Your task to perform on an android device: Open Google Image 0: 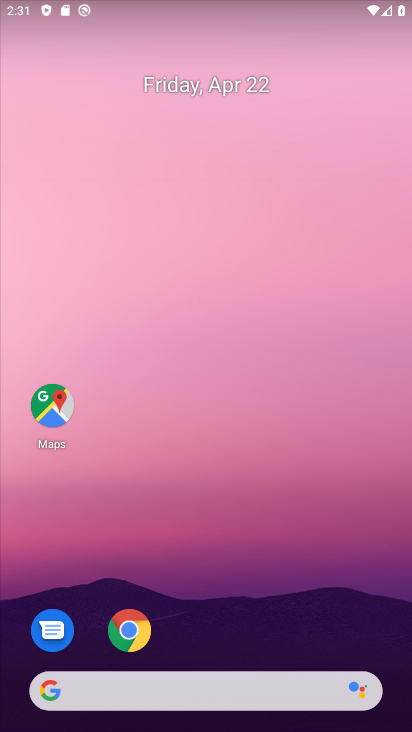
Step 0: drag from (331, 574) to (321, 180)
Your task to perform on an android device: Open Google Image 1: 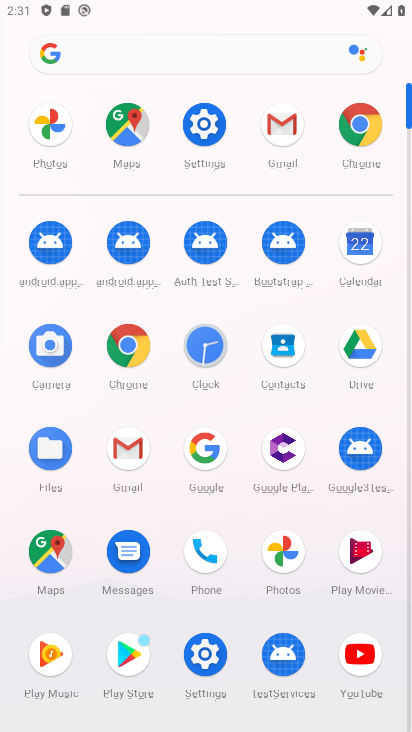
Step 1: click (202, 465)
Your task to perform on an android device: Open Google Image 2: 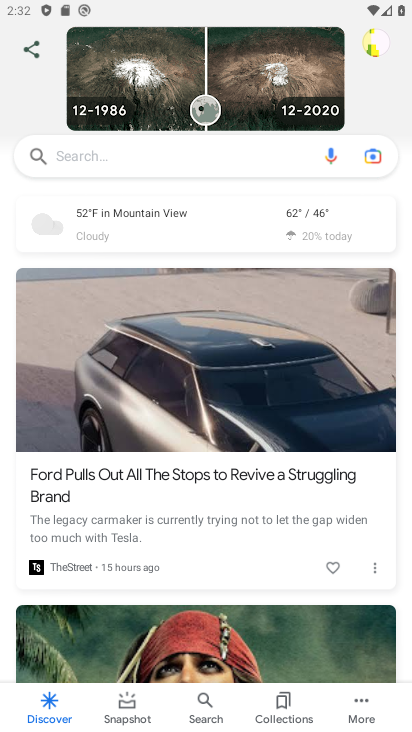
Step 2: task complete